Your task to perform on an android device: toggle show notifications on the lock screen Image 0: 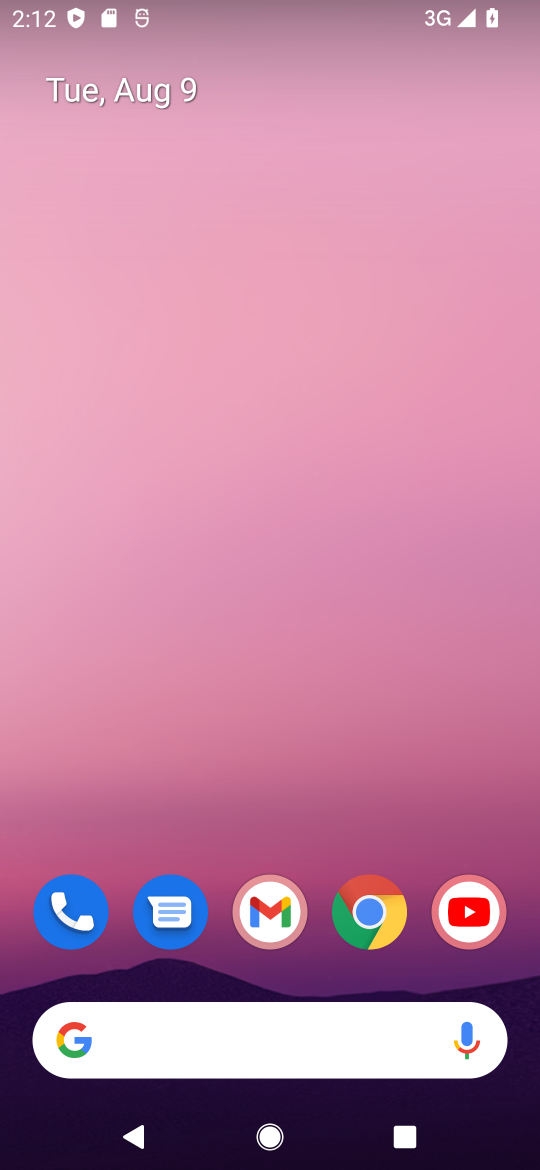
Step 0: drag from (307, 777) to (259, 118)
Your task to perform on an android device: toggle show notifications on the lock screen Image 1: 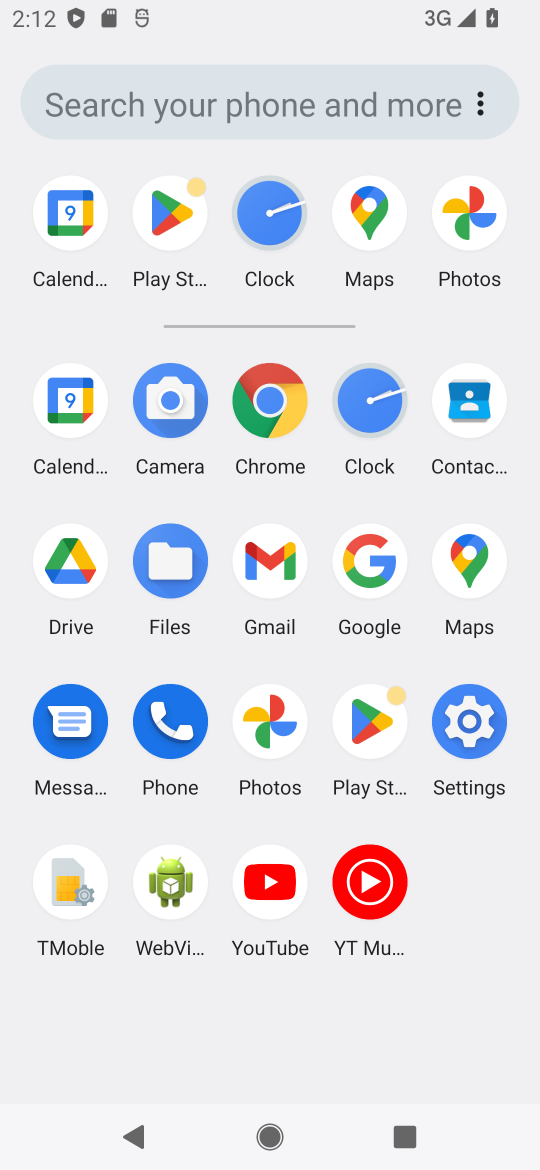
Step 1: click (470, 729)
Your task to perform on an android device: toggle show notifications on the lock screen Image 2: 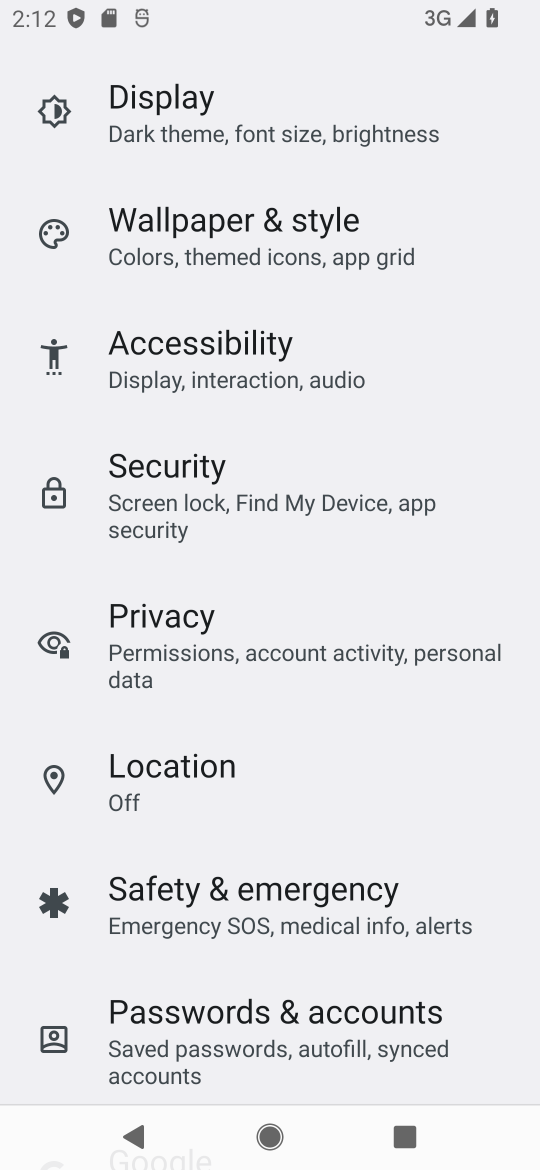
Step 2: drag from (401, 289) to (422, 745)
Your task to perform on an android device: toggle show notifications on the lock screen Image 3: 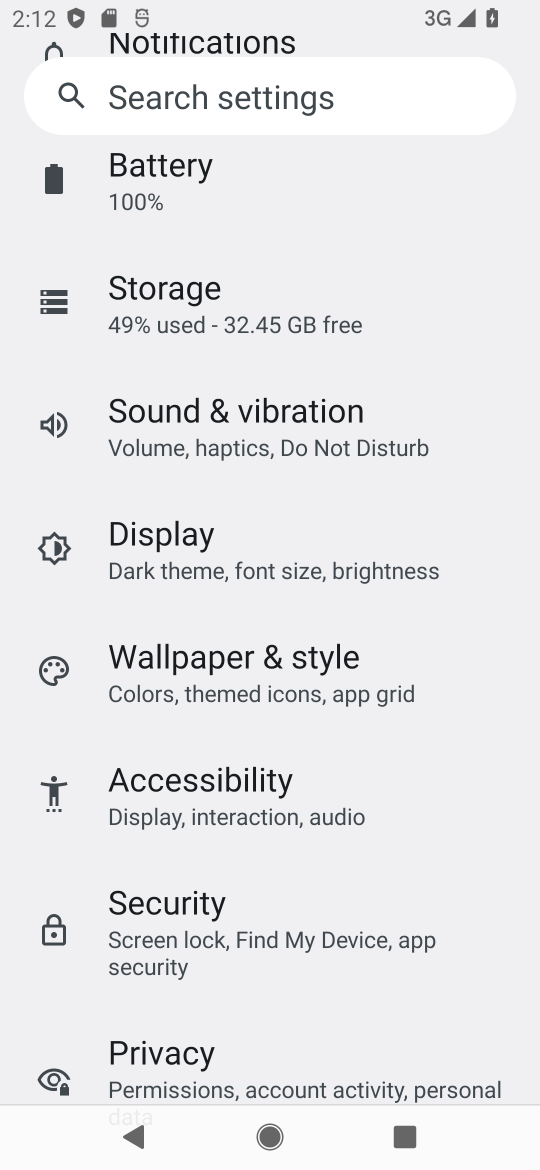
Step 3: drag from (345, 227) to (392, 667)
Your task to perform on an android device: toggle show notifications on the lock screen Image 4: 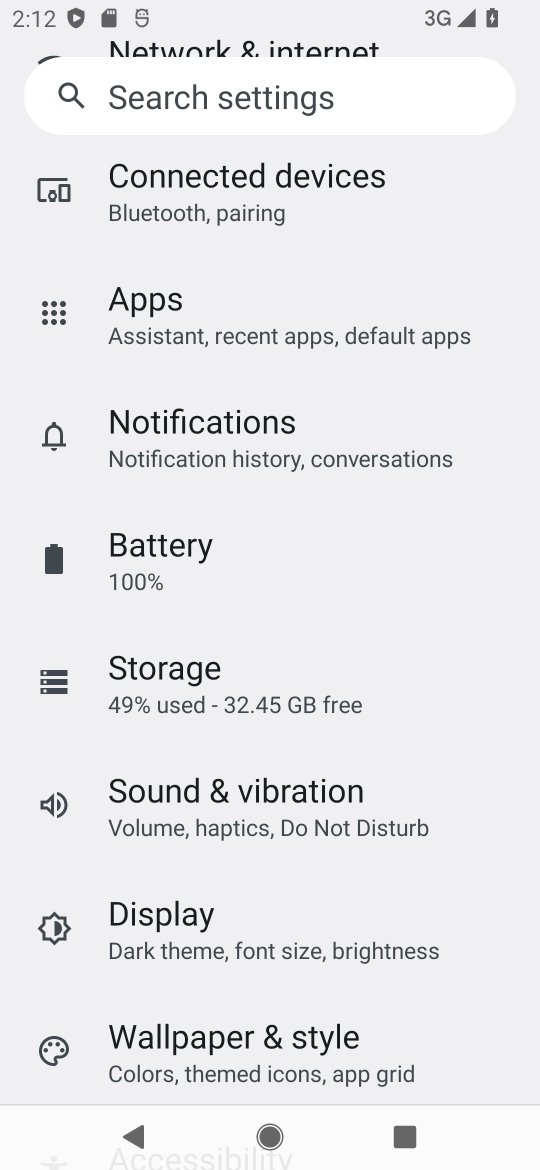
Step 4: click (206, 427)
Your task to perform on an android device: toggle show notifications on the lock screen Image 5: 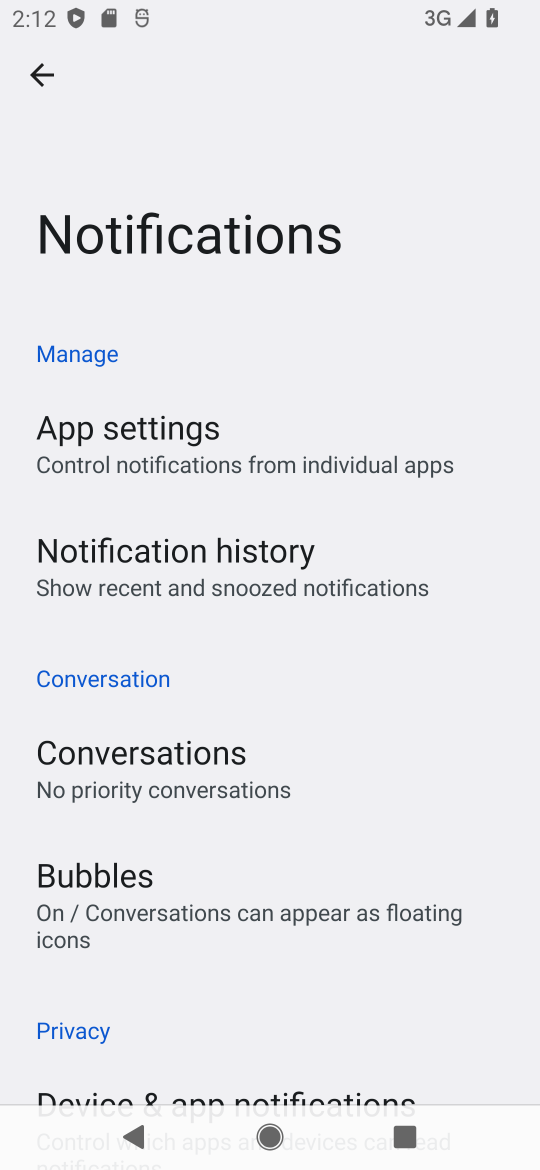
Step 5: drag from (256, 817) to (228, 405)
Your task to perform on an android device: toggle show notifications on the lock screen Image 6: 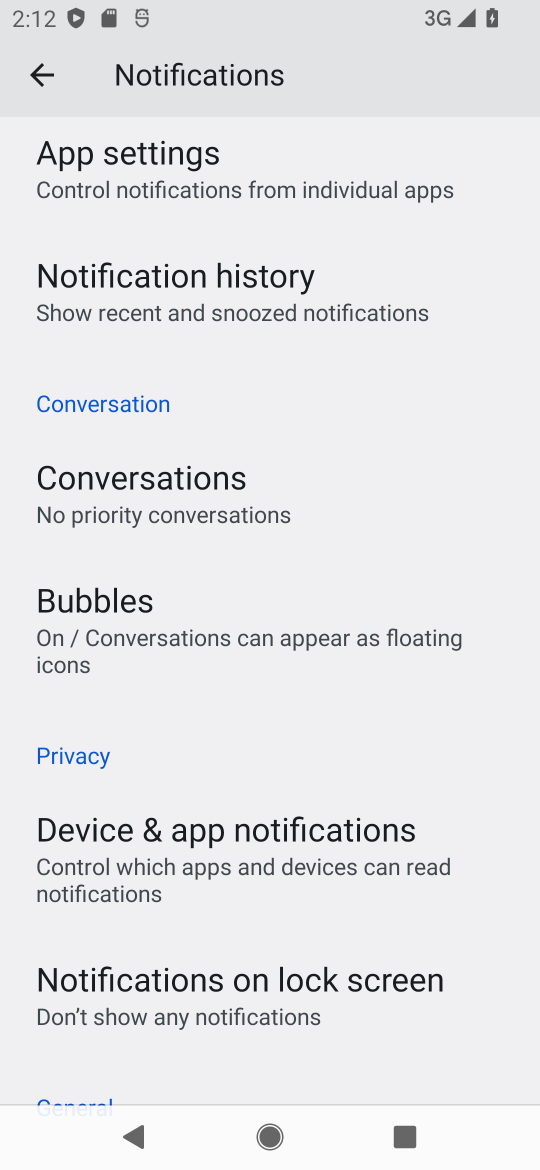
Step 6: click (238, 973)
Your task to perform on an android device: toggle show notifications on the lock screen Image 7: 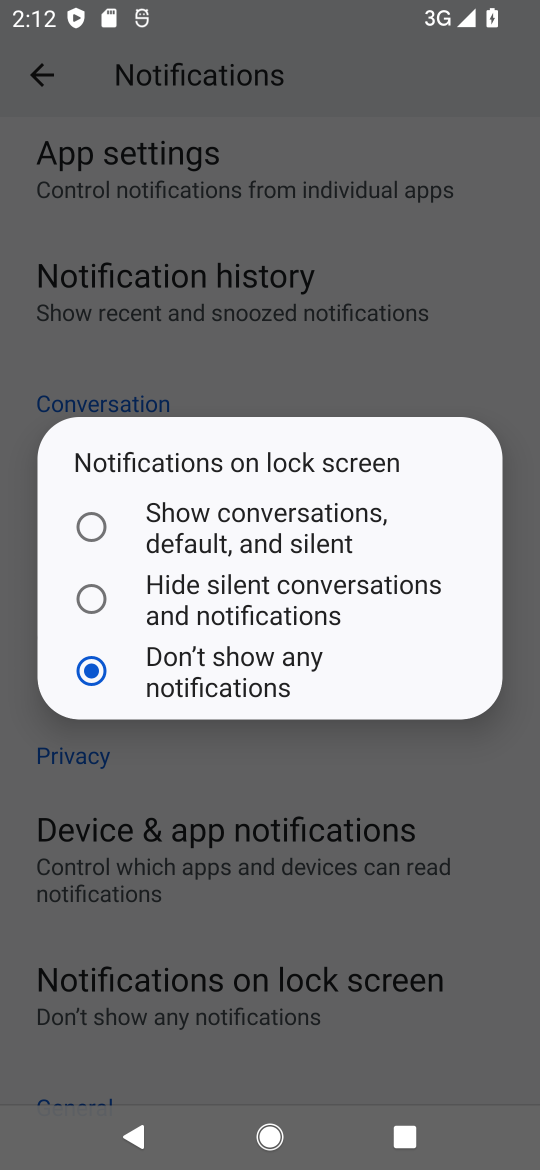
Step 7: click (87, 531)
Your task to perform on an android device: toggle show notifications on the lock screen Image 8: 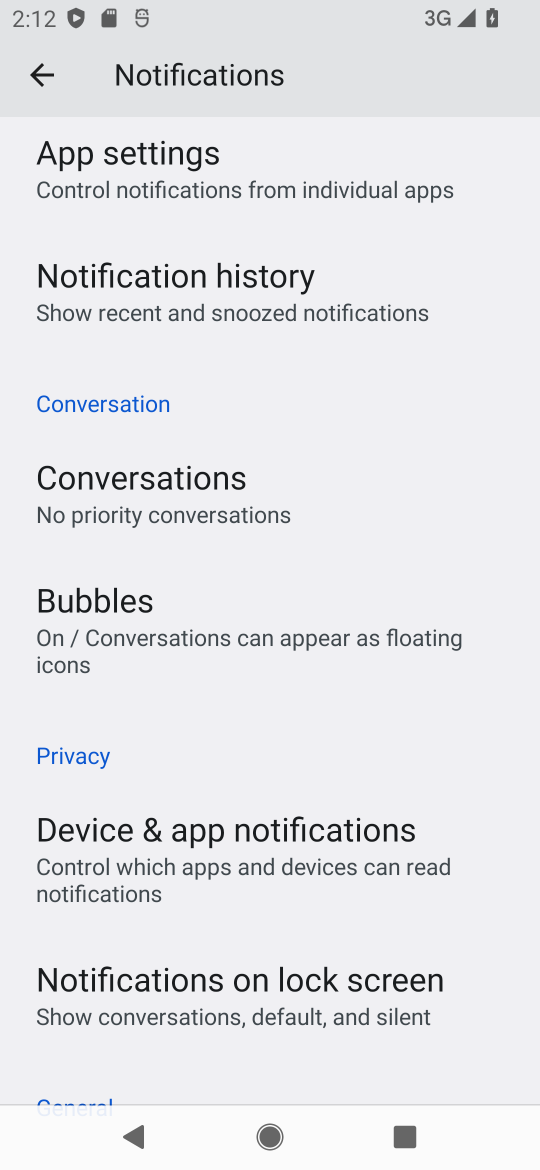
Step 8: task complete